Your task to perform on an android device: change the clock display to analog Image 0: 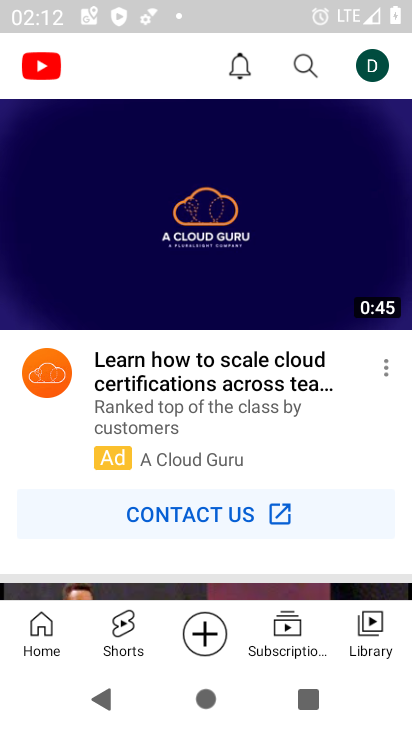
Step 0: press home button
Your task to perform on an android device: change the clock display to analog Image 1: 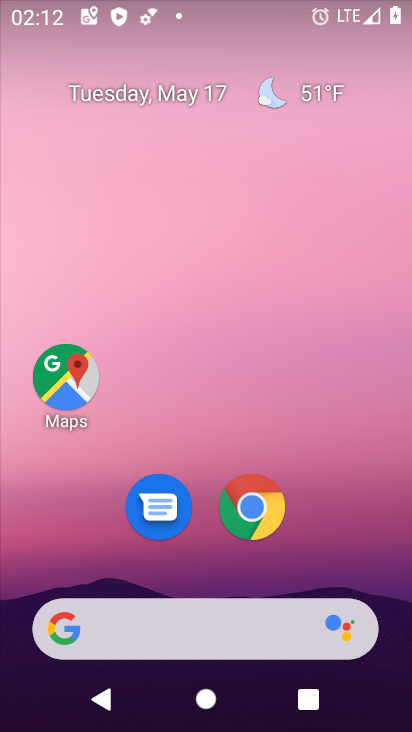
Step 1: drag from (303, 555) to (322, 88)
Your task to perform on an android device: change the clock display to analog Image 2: 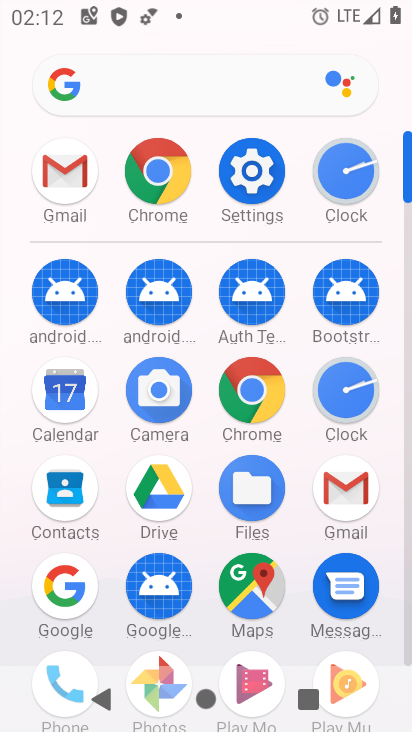
Step 2: click (349, 392)
Your task to perform on an android device: change the clock display to analog Image 3: 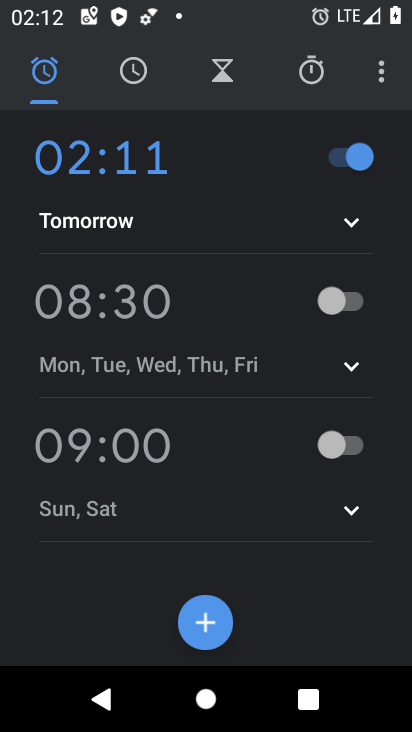
Step 3: click (388, 67)
Your task to perform on an android device: change the clock display to analog Image 4: 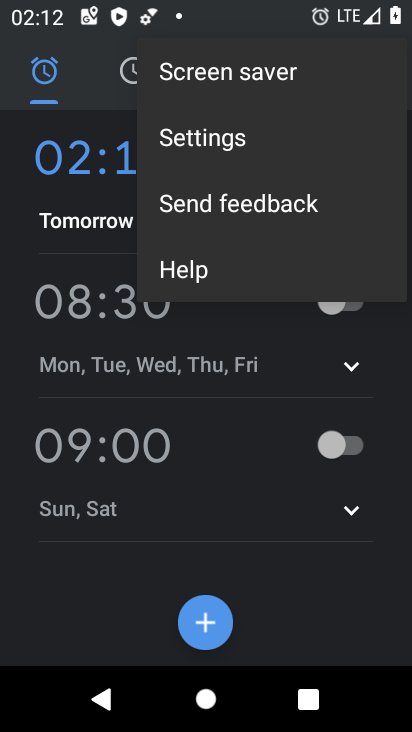
Step 4: click (257, 130)
Your task to perform on an android device: change the clock display to analog Image 5: 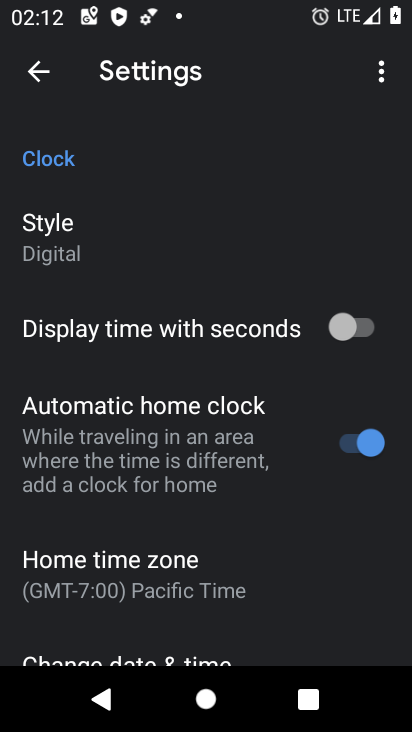
Step 5: click (154, 249)
Your task to perform on an android device: change the clock display to analog Image 6: 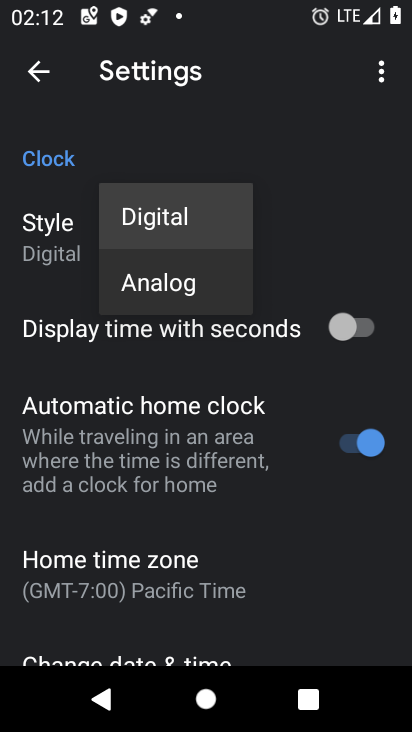
Step 6: click (170, 271)
Your task to perform on an android device: change the clock display to analog Image 7: 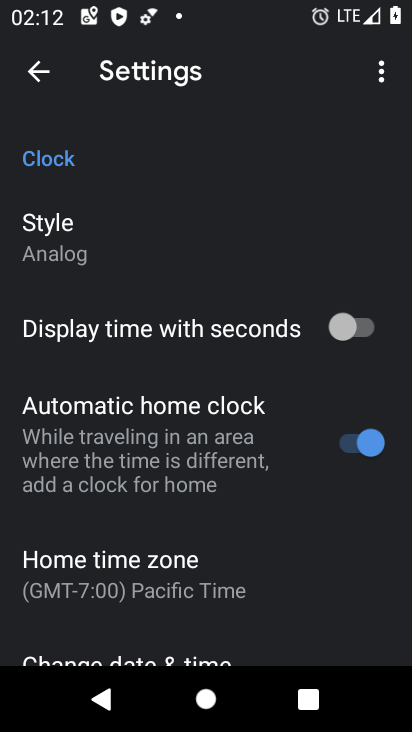
Step 7: task complete